Your task to perform on an android device: Go to display settings Image 0: 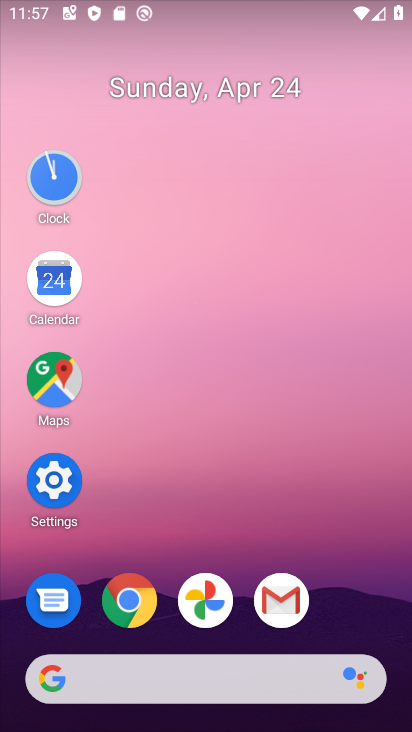
Step 0: click (50, 485)
Your task to perform on an android device: Go to display settings Image 1: 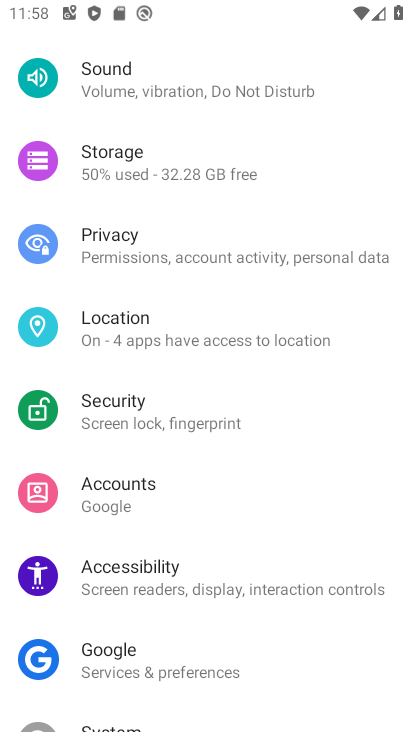
Step 1: drag from (231, 512) to (209, 233)
Your task to perform on an android device: Go to display settings Image 2: 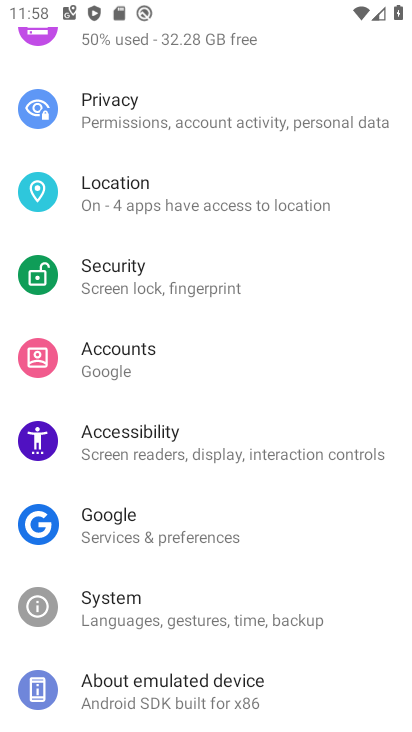
Step 2: drag from (220, 148) to (356, 631)
Your task to perform on an android device: Go to display settings Image 3: 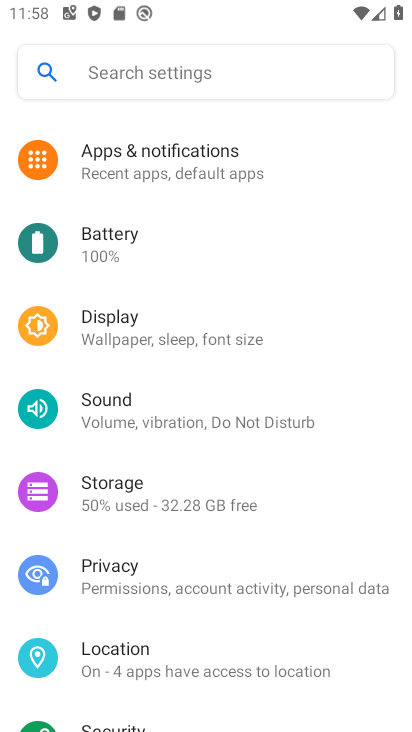
Step 3: click (119, 316)
Your task to perform on an android device: Go to display settings Image 4: 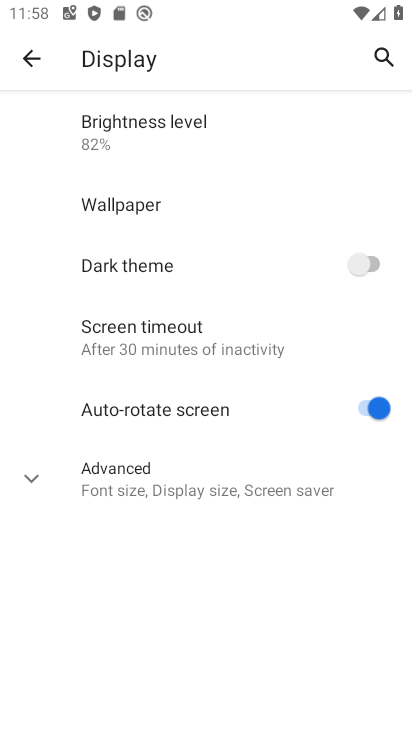
Step 4: task complete